Your task to perform on an android device: turn vacation reply on in the gmail app Image 0: 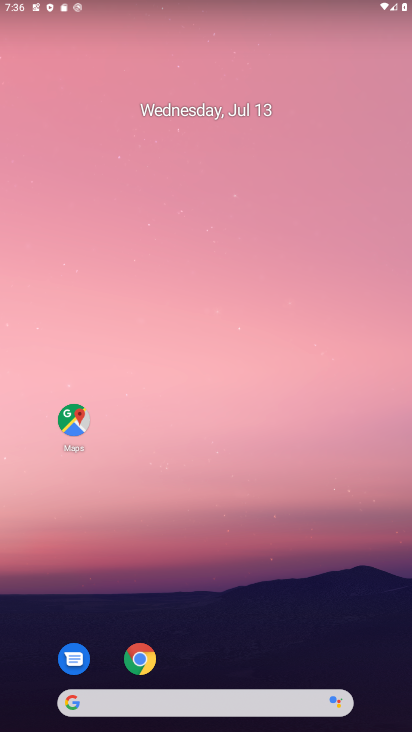
Step 0: drag from (355, 669) to (255, 11)
Your task to perform on an android device: turn vacation reply on in the gmail app Image 1: 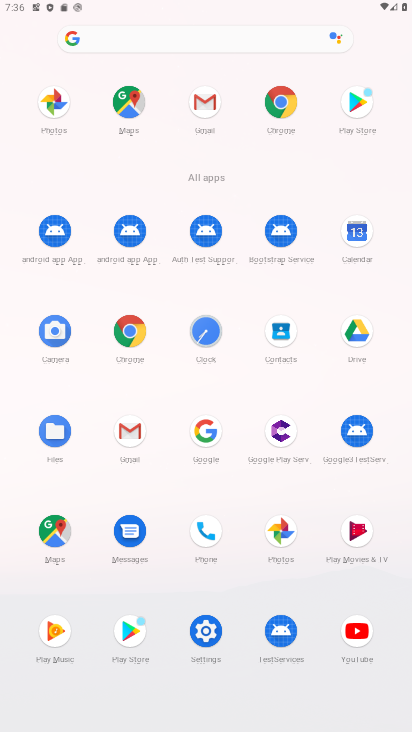
Step 1: click (203, 112)
Your task to perform on an android device: turn vacation reply on in the gmail app Image 2: 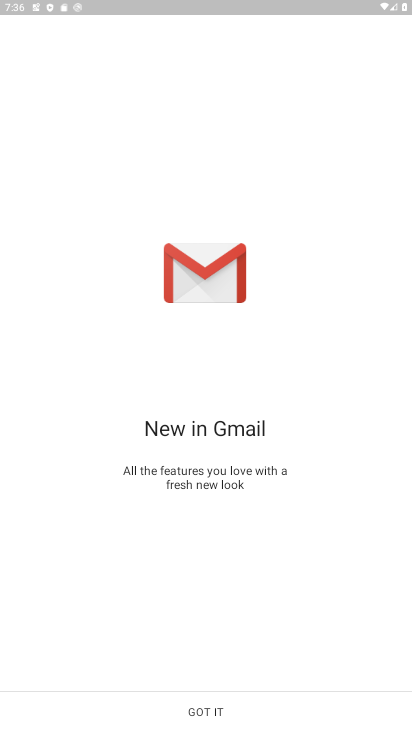
Step 2: click (199, 706)
Your task to perform on an android device: turn vacation reply on in the gmail app Image 3: 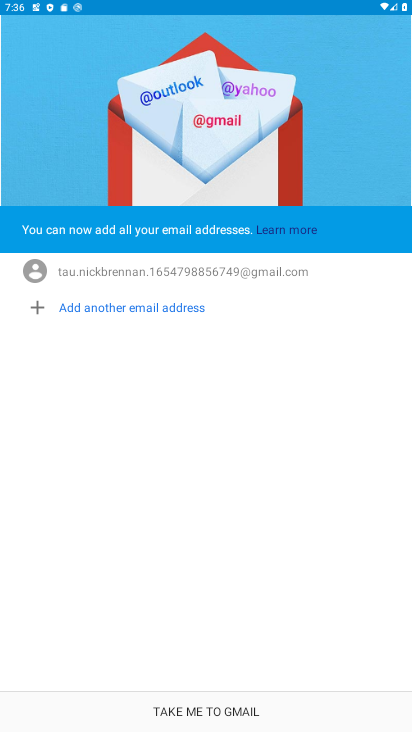
Step 3: click (241, 712)
Your task to perform on an android device: turn vacation reply on in the gmail app Image 4: 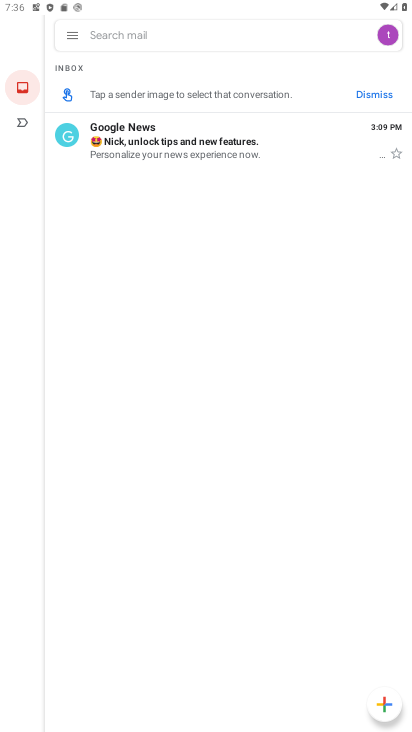
Step 4: click (73, 29)
Your task to perform on an android device: turn vacation reply on in the gmail app Image 5: 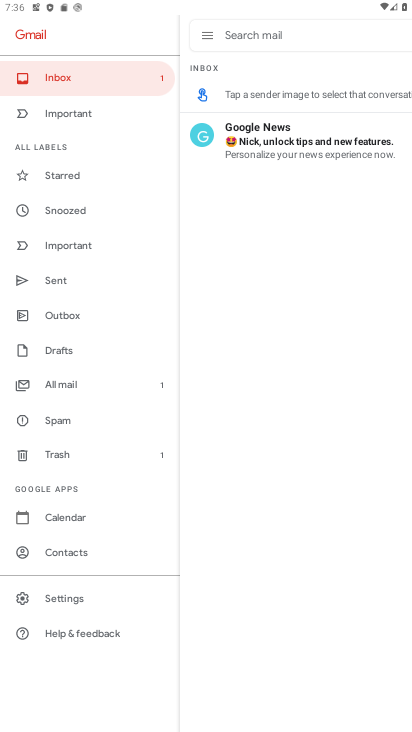
Step 5: click (94, 595)
Your task to perform on an android device: turn vacation reply on in the gmail app Image 6: 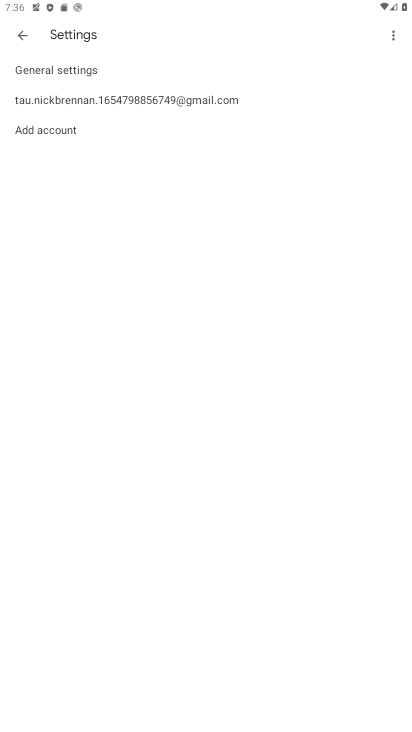
Step 6: click (105, 92)
Your task to perform on an android device: turn vacation reply on in the gmail app Image 7: 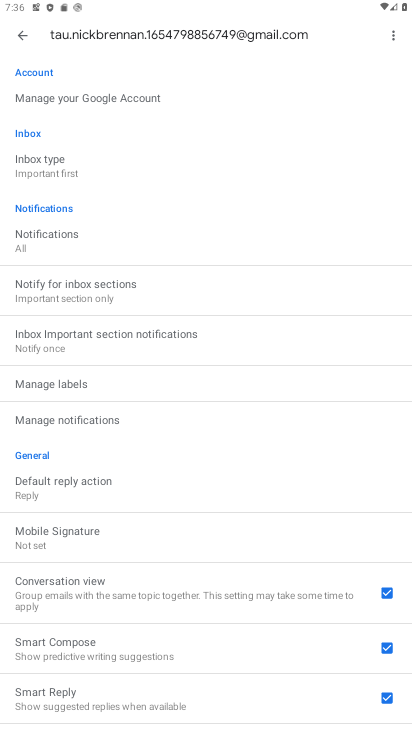
Step 7: drag from (198, 290) to (229, 153)
Your task to perform on an android device: turn vacation reply on in the gmail app Image 8: 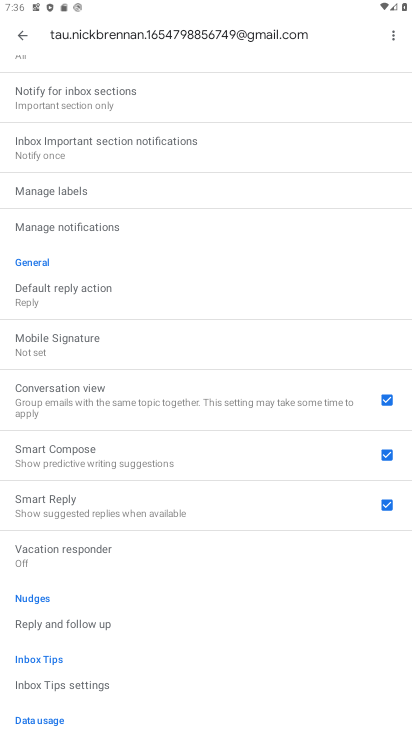
Step 8: drag from (192, 310) to (219, 110)
Your task to perform on an android device: turn vacation reply on in the gmail app Image 9: 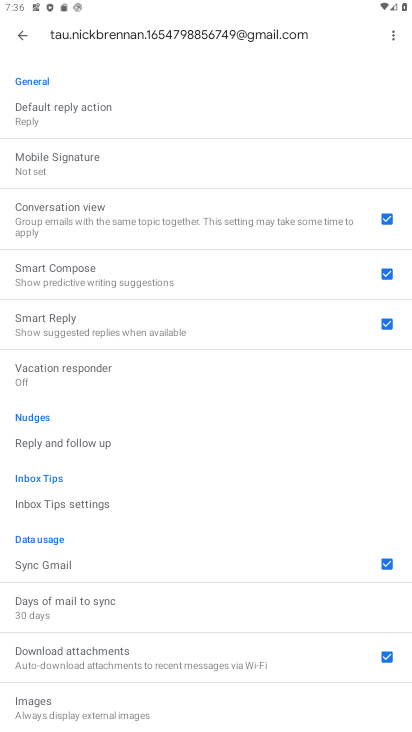
Step 9: drag from (168, 343) to (209, 51)
Your task to perform on an android device: turn vacation reply on in the gmail app Image 10: 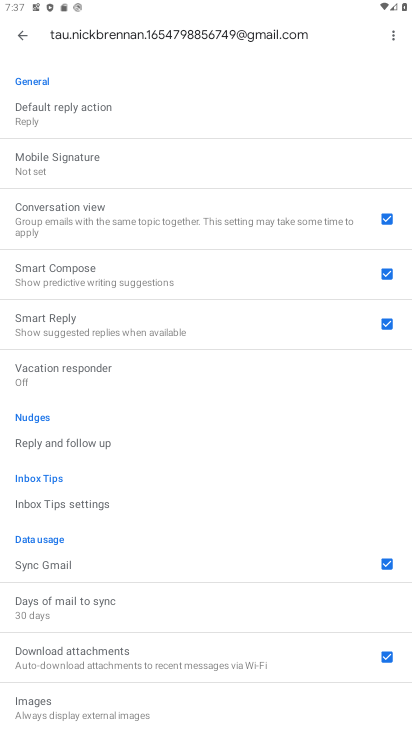
Step 10: click (59, 380)
Your task to perform on an android device: turn vacation reply on in the gmail app Image 11: 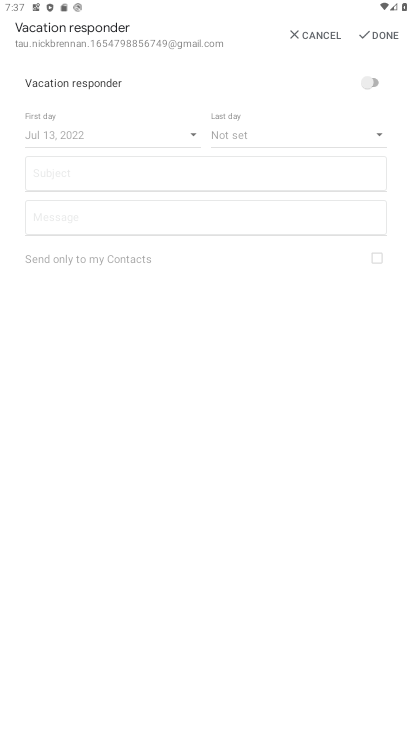
Step 11: click (381, 85)
Your task to perform on an android device: turn vacation reply on in the gmail app Image 12: 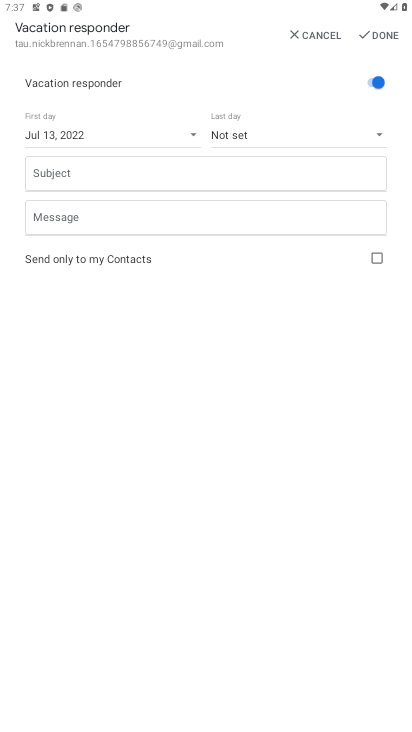
Step 12: click (387, 29)
Your task to perform on an android device: turn vacation reply on in the gmail app Image 13: 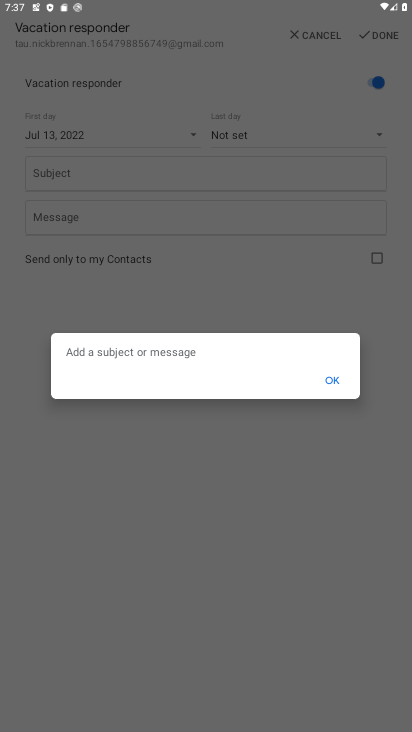
Step 13: click (329, 385)
Your task to perform on an android device: turn vacation reply on in the gmail app Image 14: 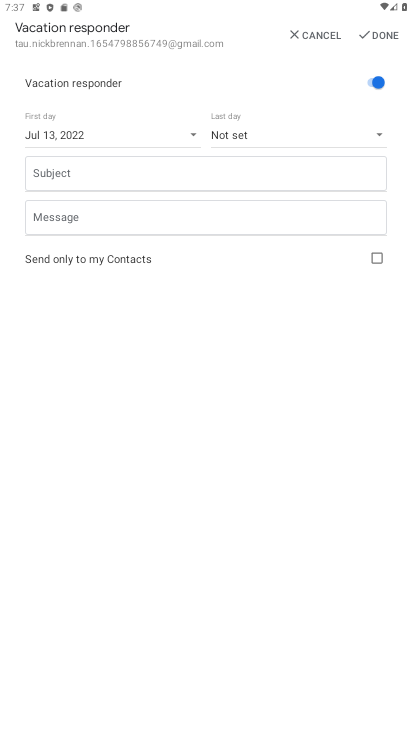
Step 14: task complete